Your task to perform on an android device: Open Youtube and go to "Your channel" Image 0: 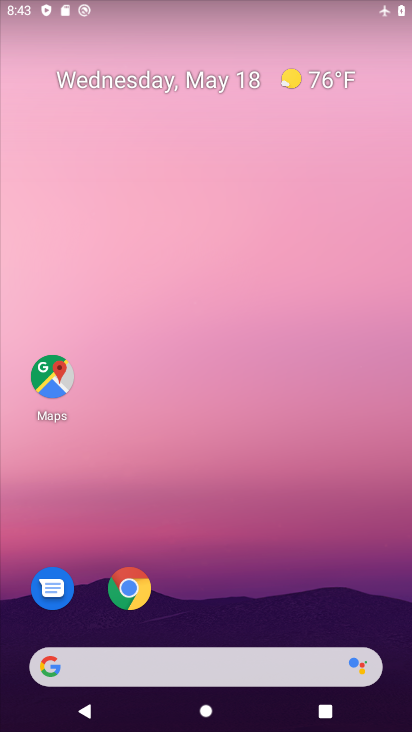
Step 0: drag from (231, 561) to (125, 78)
Your task to perform on an android device: Open Youtube and go to "Your channel" Image 1: 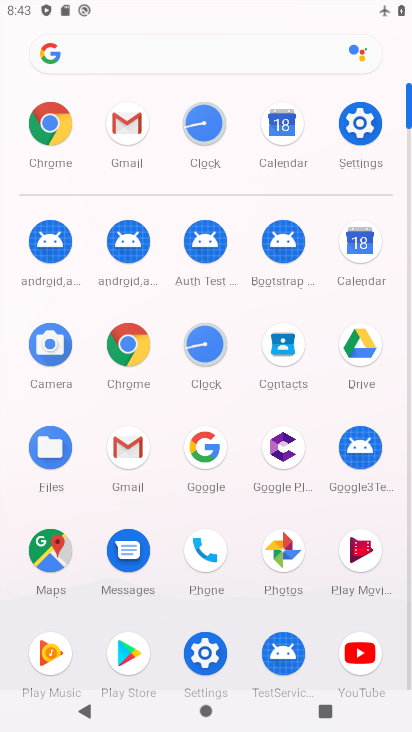
Step 1: click (348, 655)
Your task to perform on an android device: Open Youtube and go to "Your channel" Image 2: 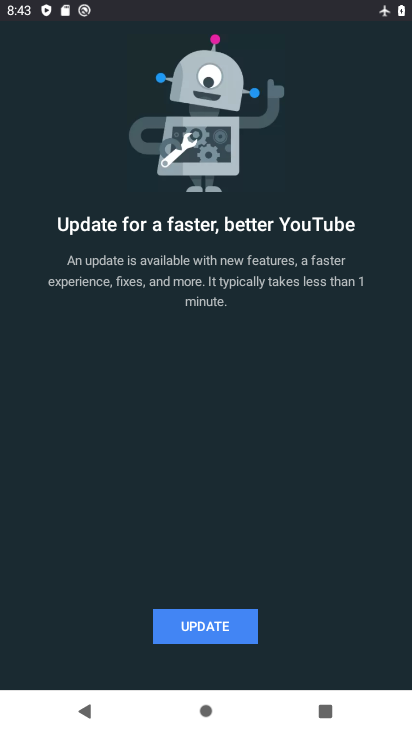
Step 2: click (221, 629)
Your task to perform on an android device: Open Youtube and go to "Your channel" Image 3: 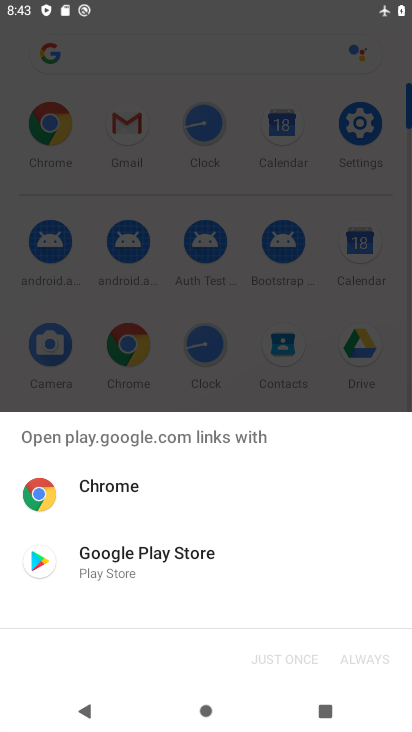
Step 3: click (115, 571)
Your task to perform on an android device: Open Youtube and go to "Your channel" Image 4: 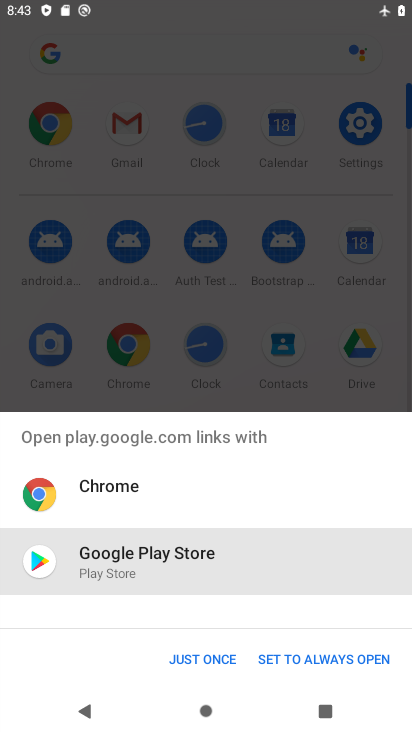
Step 4: click (175, 651)
Your task to perform on an android device: Open Youtube and go to "Your channel" Image 5: 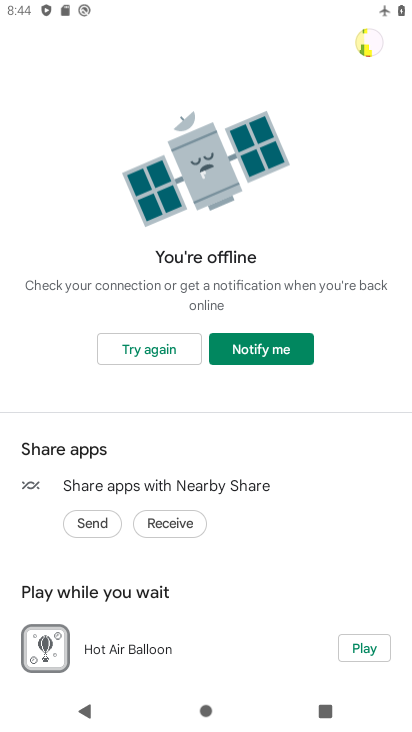
Step 5: click (149, 339)
Your task to perform on an android device: Open Youtube and go to "Your channel" Image 6: 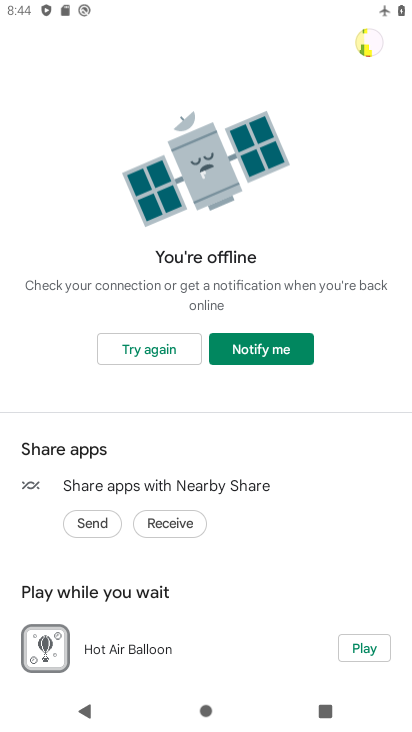
Step 6: task complete